Your task to perform on an android device: Open Amazon Image 0: 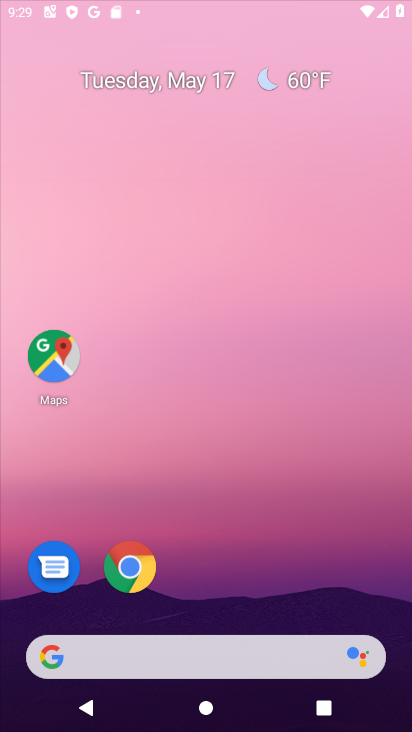
Step 0: drag from (397, 618) to (285, 95)
Your task to perform on an android device: Open Amazon Image 1: 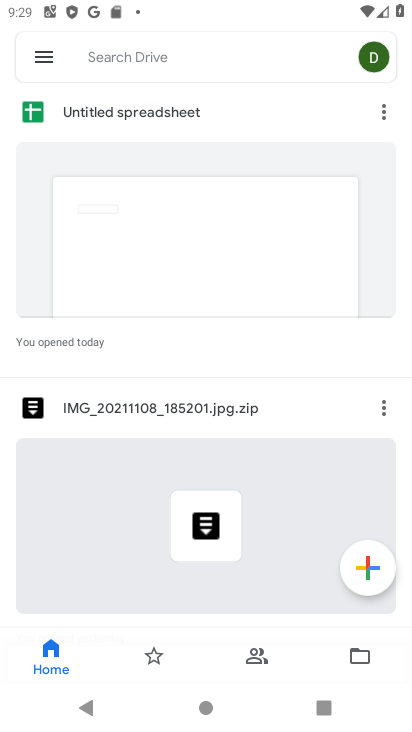
Step 1: press home button
Your task to perform on an android device: Open Amazon Image 2: 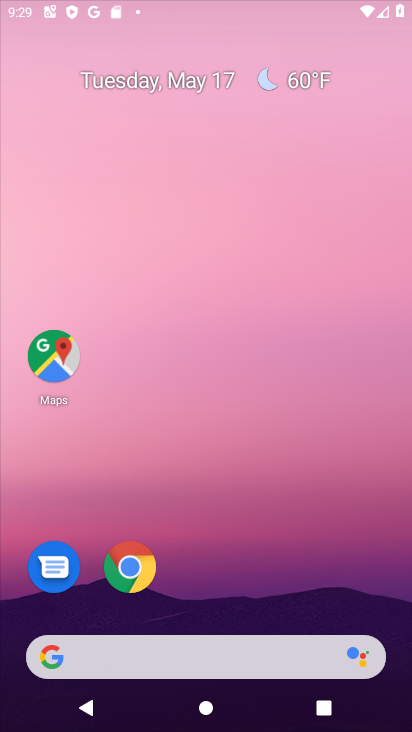
Step 2: drag from (375, 618) to (218, 39)
Your task to perform on an android device: Open Amazon Image 3: 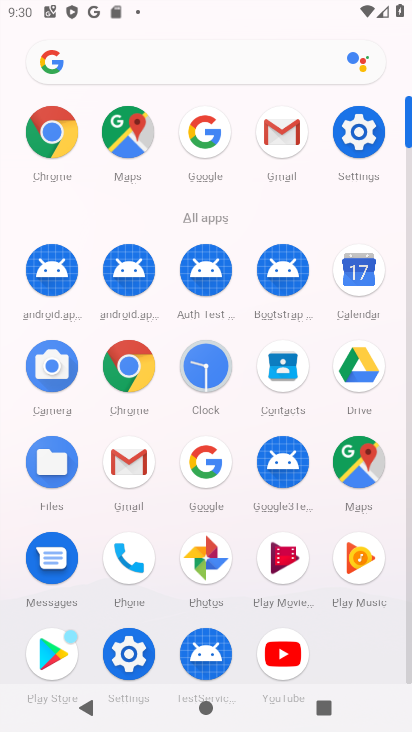
Step 3: click (136, 373)
Your task to perform on an android device: Open Amazon Image 4: 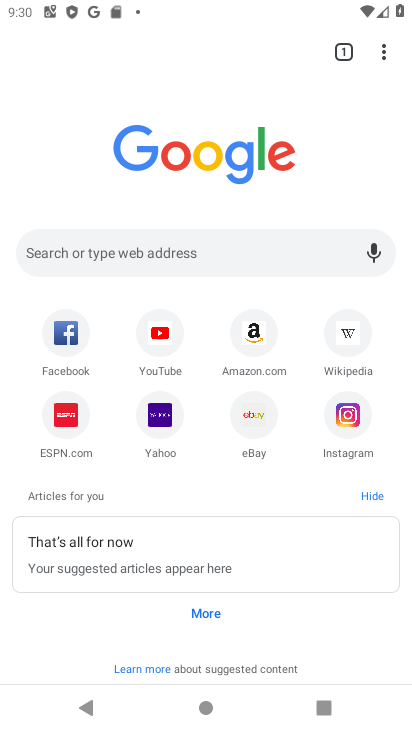
Step 4: click (254, 336)
Your task to perform on an android device: Open Amazon Image 5: 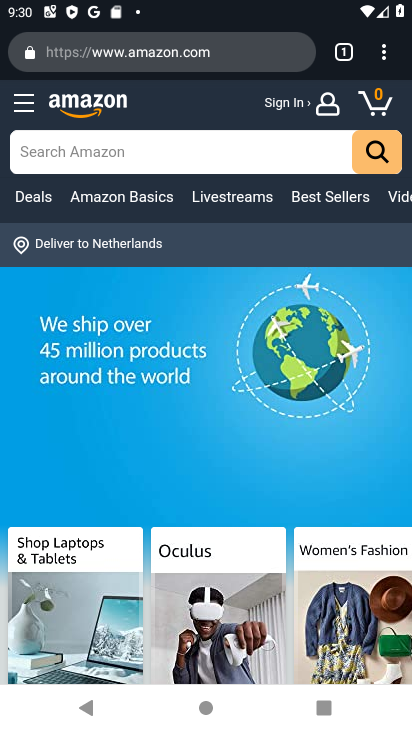
Step 5: task complete